Your task to perform on an android device: Show me recent news Image 0: 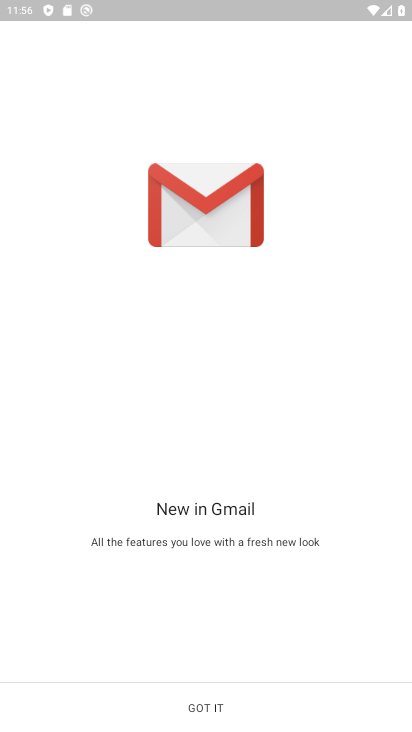
Step 0: press home button
Your task to perform on an android device: Show me recent news Image 1: 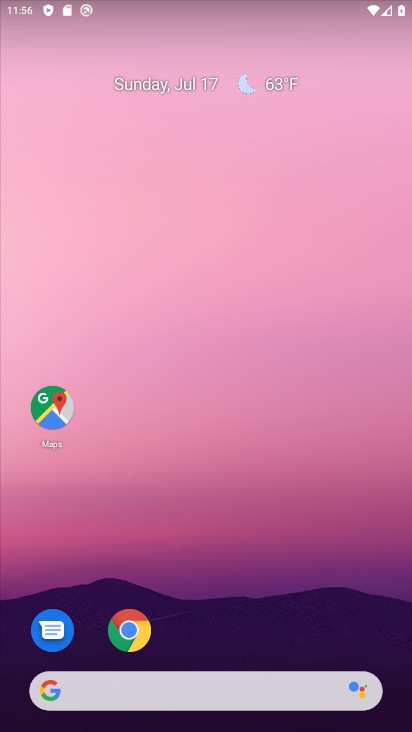
Step 1: task complete